Your task to perform on an android device: turn off smart reply in the gmail app Image 0: 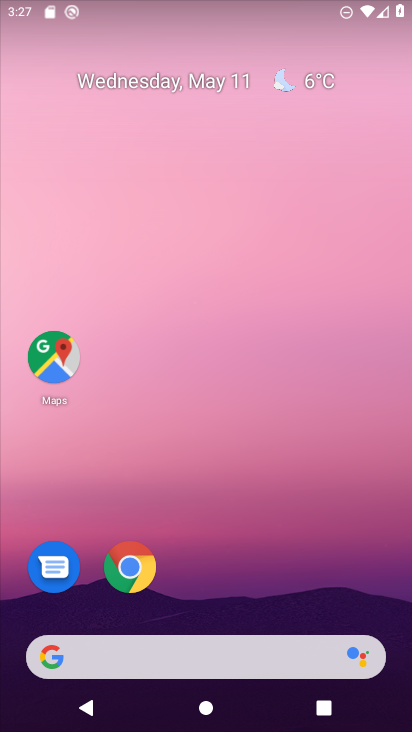
Step 0: drag from (310, 566) to (195, 124)
Your task to perform on an android device: turn off smart reply in the gmail app Image 1: 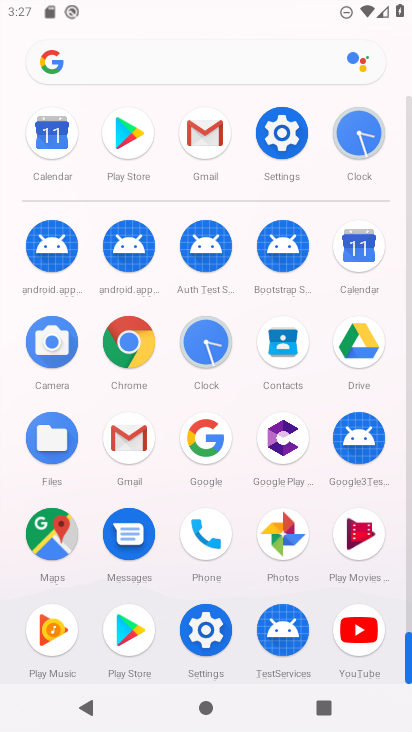
Step 1: click (128, 442)
Your task to perform on an android device: turn off smart reply in the gmail app Image 2: 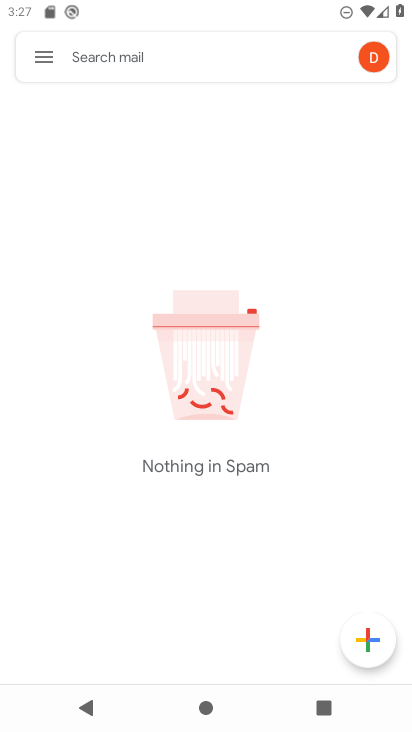
Step 2: click (44, 62)
Your task to perform on an android device: turn off smart reply in the gmail app Image 3: 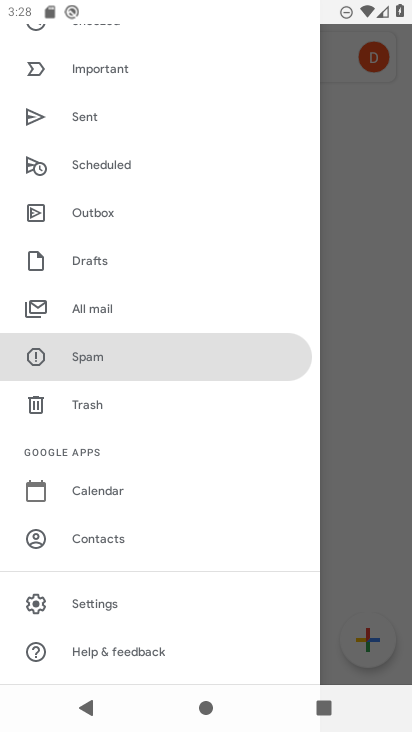
Step 3: click (158, 596)
Your task to perform on an android device: turn off smart reply in the gmail app Image 4: 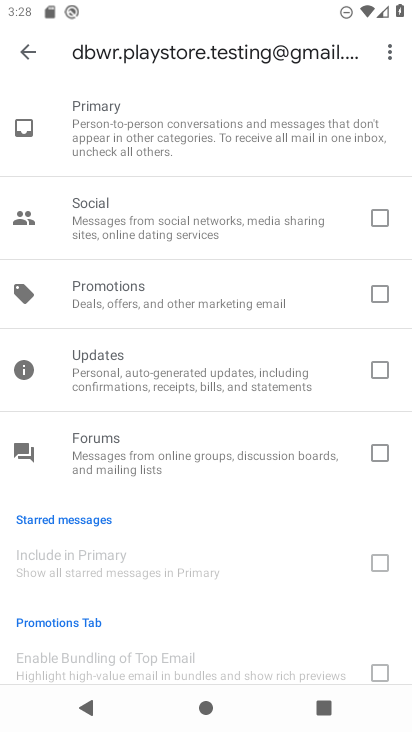
Step 4: click (27, 49)
Your task to perform on an android device: turn off smart reply in the gmail app Image 5: 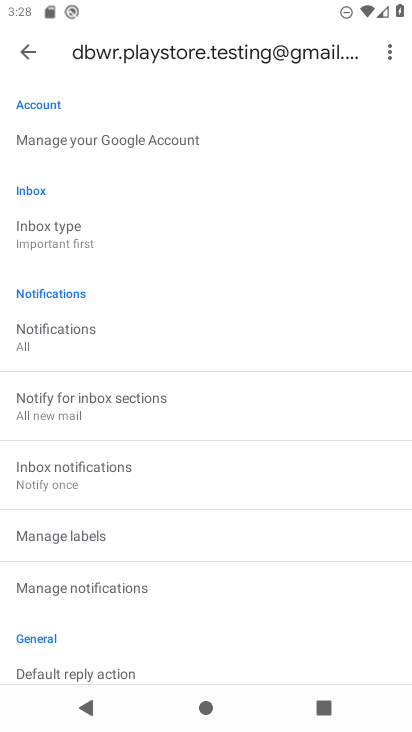
Step 5: drag from (232, 453) to (197, 183)
Your task to perform on an android device: turn off smart reply in the gmail app Image 6: 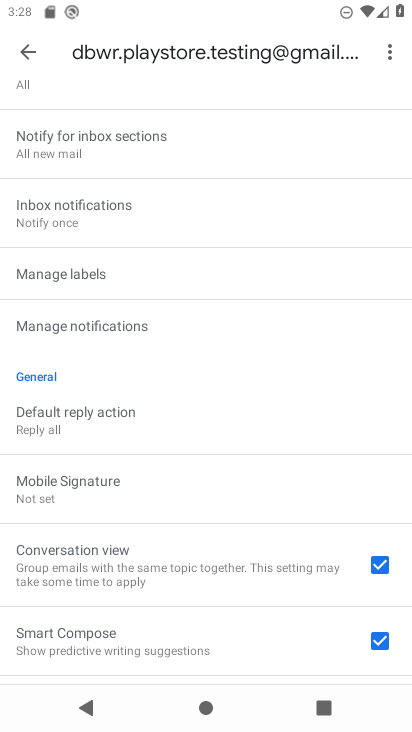
Step 6: drag from (250, 497) to (167, 184)
Your task to perform on an android device: turn off smart reply in the gmail app Image 7: 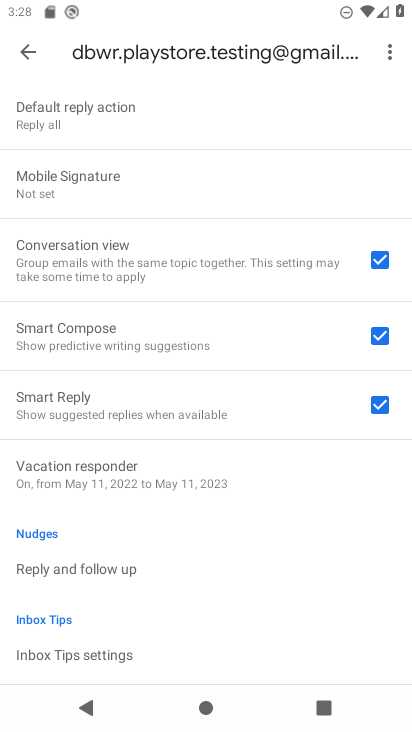
Step 7: click (379, 403)
Your task to perform on an android device: turn off smart reply in the gmail app Image 8: 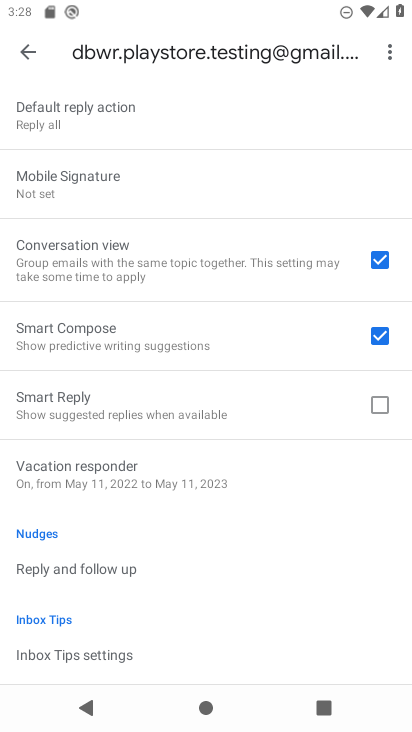
Step 8: task complete